Your task to perform on an android device: toggle priority inbox in the gmail app Image 0: 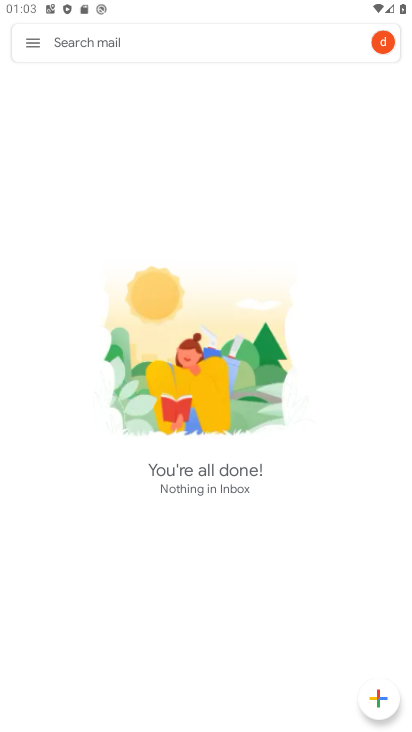
Step 0: press home button
Your task to perform on an android device: toggle priority inbox in the gmail app Image 1: 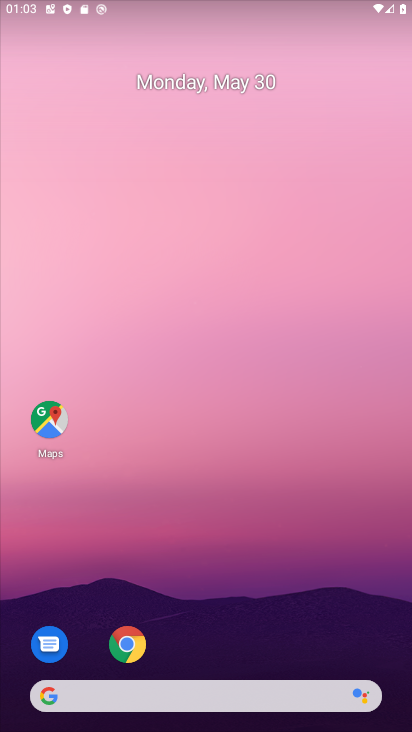
Step 1: drag from (381, 624) to (315, 87)
Your task to perform on an android device: toggle priority inbox in the gmail app Image 2: 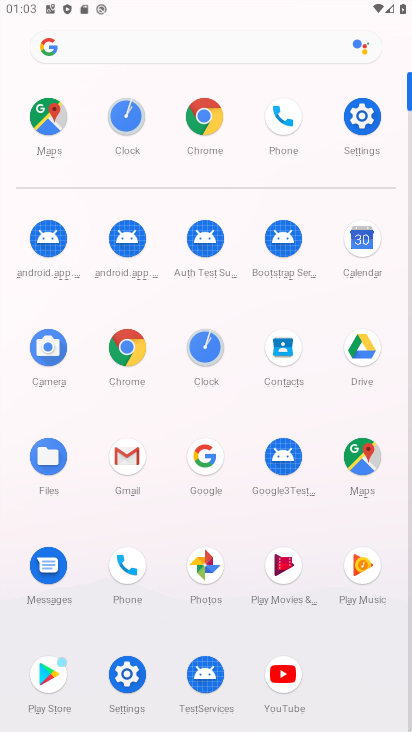
Step 2: click (135, 471)
Your task to perform on an android device: toggle priority inbox in the gmail app Image 3: 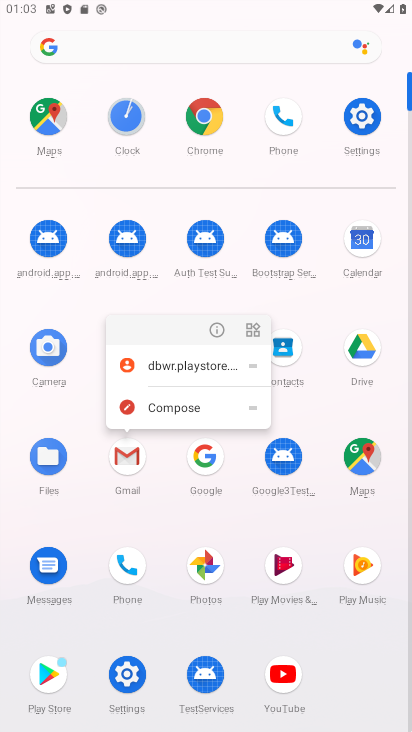
Step 3: click (137, 471)
Your task to perform on an android device: toggle priority inbox in the gmail app Image 4: 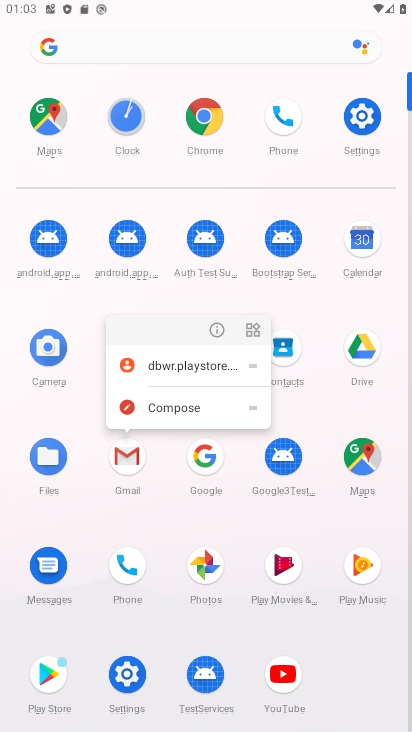
Step 4: click (129, 483)
Your task to perform on an android device: toggle priority inbox in the gmail app Image 5: 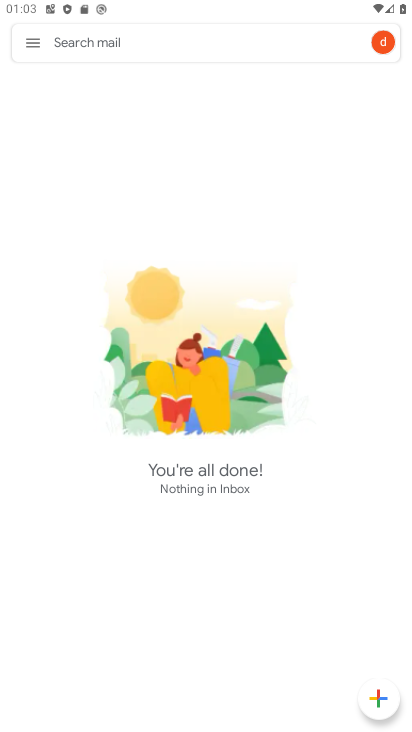
Step 5: click (37, 52)
Your task to perform on an android device: toggle priority inbox in the gmail app Image 6: 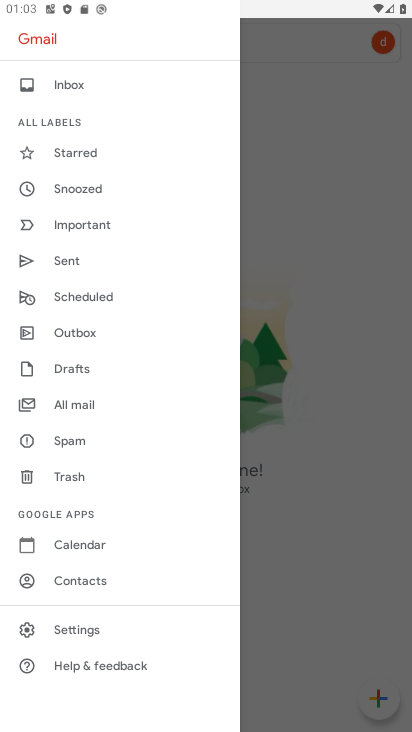
Step 6: click (100, 627)
Your task to perform on an android device: toggle priority inbox in the gmail app Image 7: 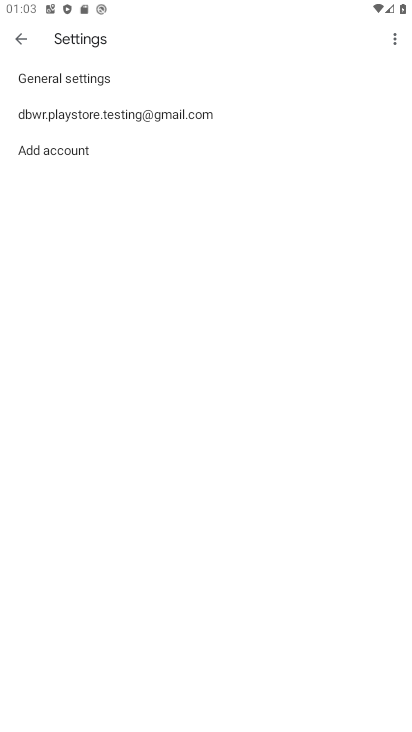
Step 7: click (200, 106)
Your task to perform on an android device: toggle priority inbox in the gmail app Image 8: 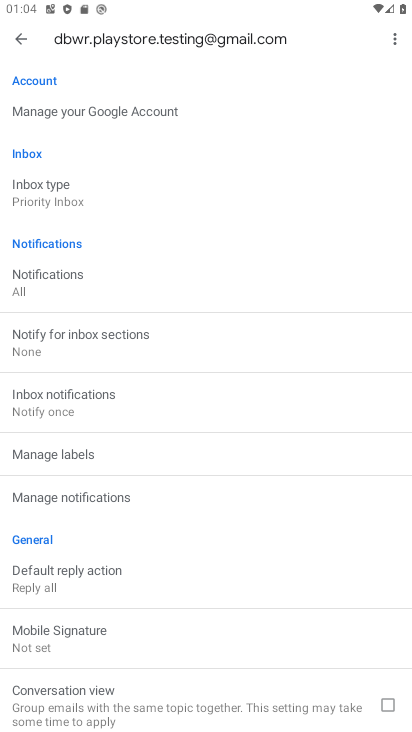
Step 8: click (75, 184)
Your task to perform on an android device: toggle priority inbox in the gmail app Image 9: 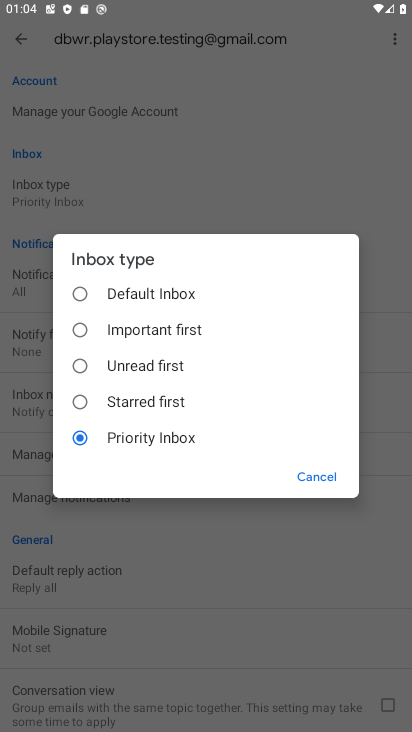
Step 9: click (82, 291)
Your task to perform on an android device: toggle priority inbox in the gmail app Image 10: 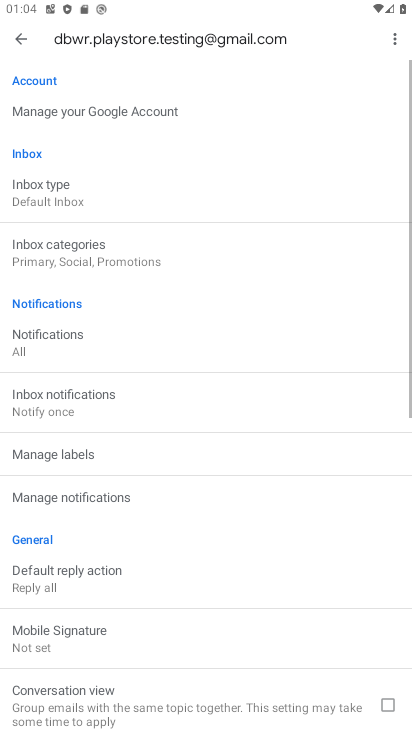
Step 10: task complete